Your task to perform on an android device: toggle wifi Image 0: 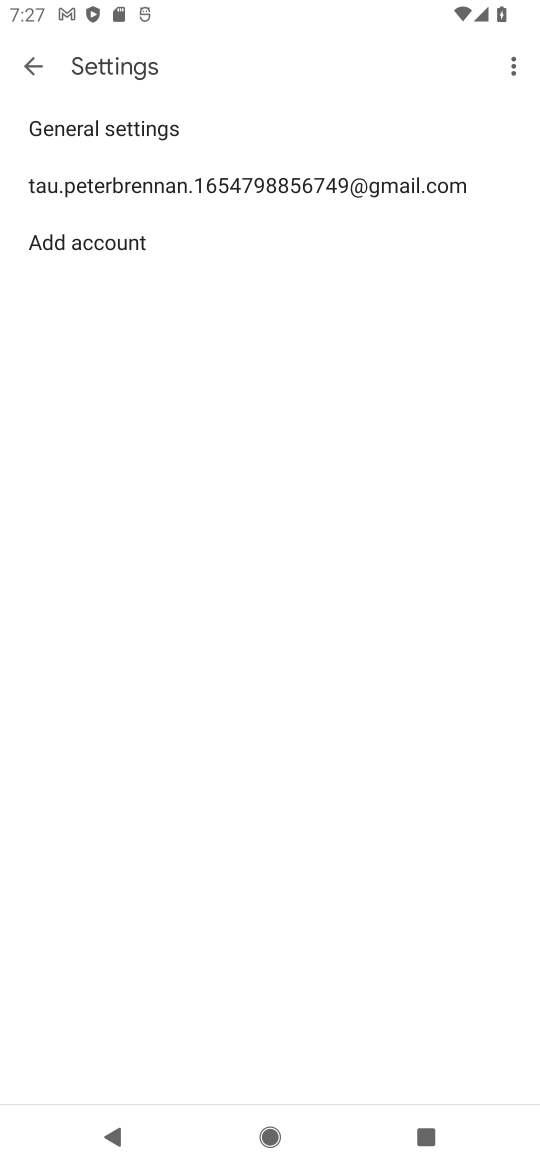
Step 0: click (31, 60)
Your task to perform on an android device: toggle wifi Image 1: 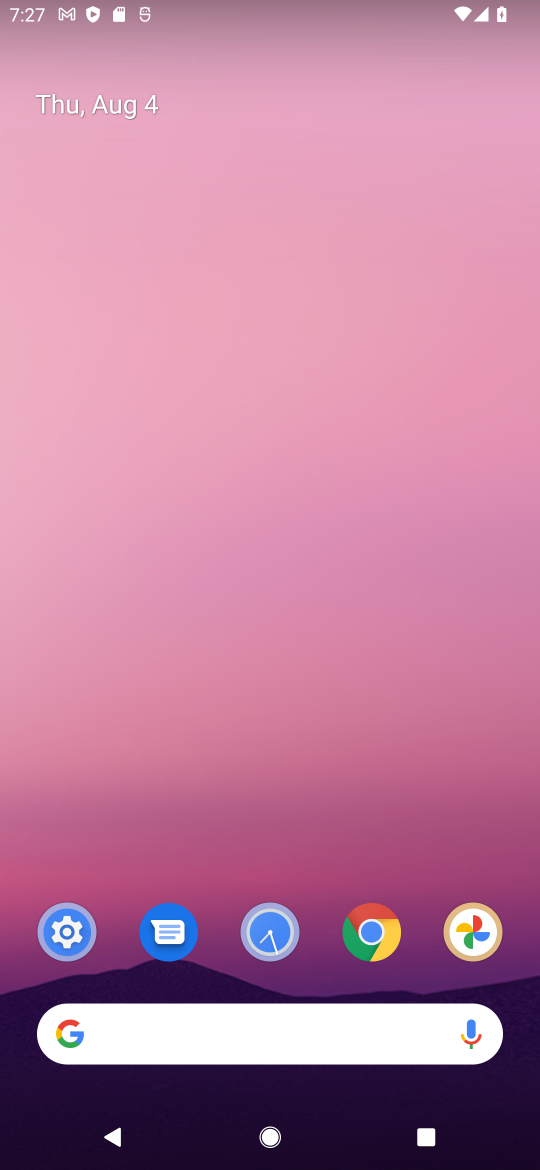
Step 1: drag from (333, 645) to (333, 352)
Your task to perform on an android device: toggle wifi Image 2: 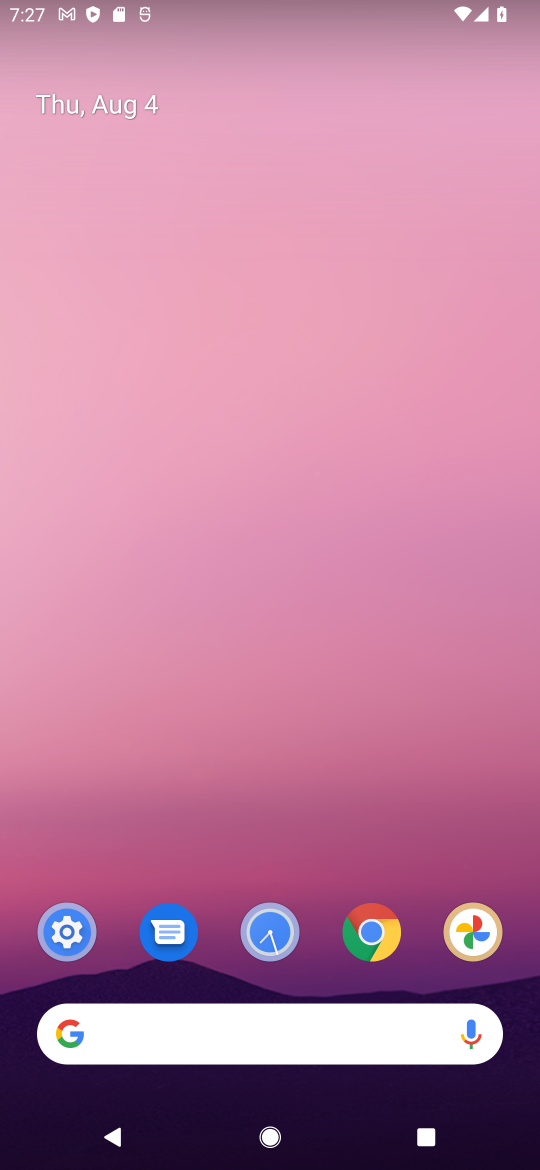
Step 2: drag from (454, 1040) to (398, 490)
Your task to perform on an android device: toggle wifi Image 3: 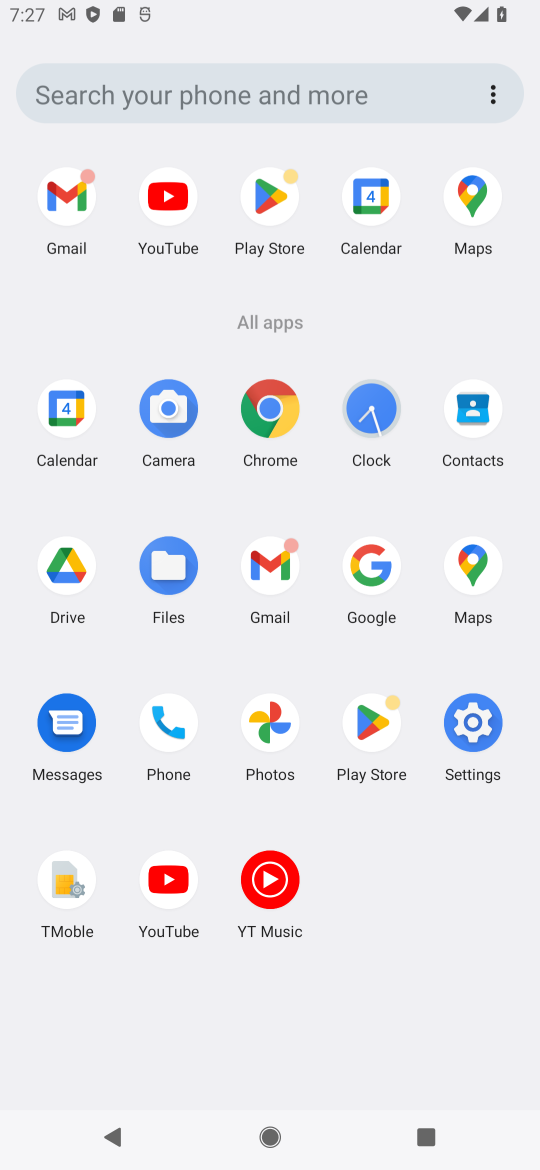
Step 3: drag from (285, 867) to (279, 399)
Your task to perform on an android device: toggle wifi Image 4: 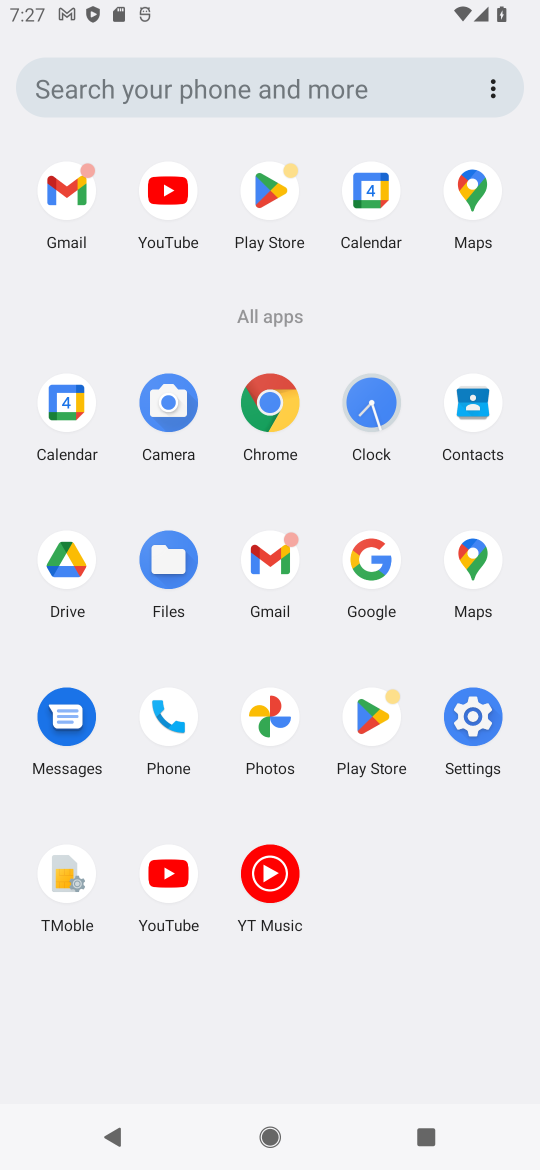
Step 4: click (465, 718)
Your task to perform on an android device: toggle wifi Image 5: 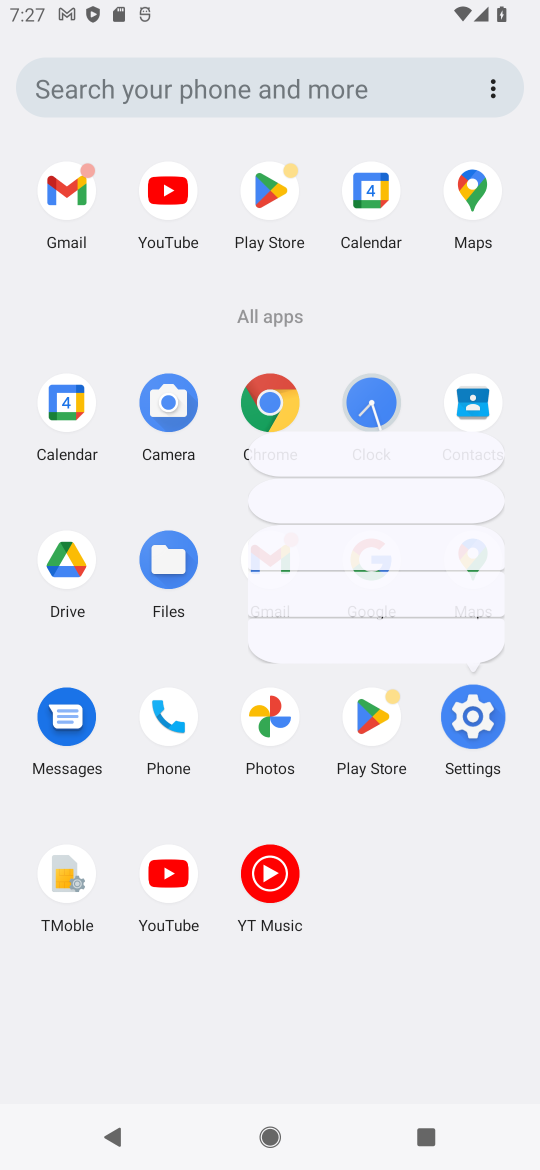
Step 5: click (465, 718)
Your task to perform on an android device: toggle wifi Image 6: 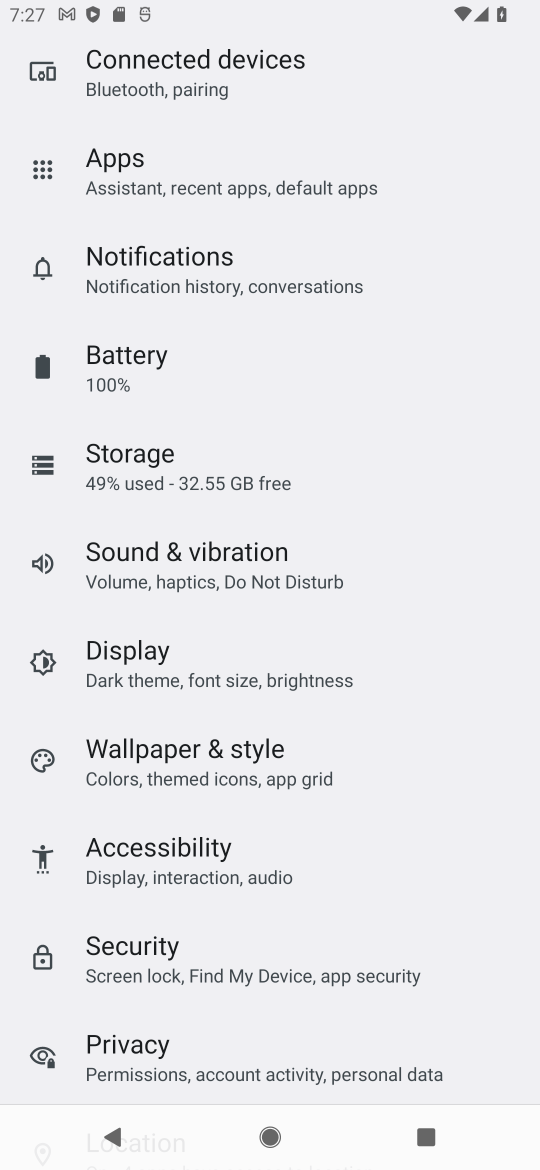
Step 6: drag from (144, 137) to (234, 613)
Your task to perform on an android device: toggle wifi Image 7: 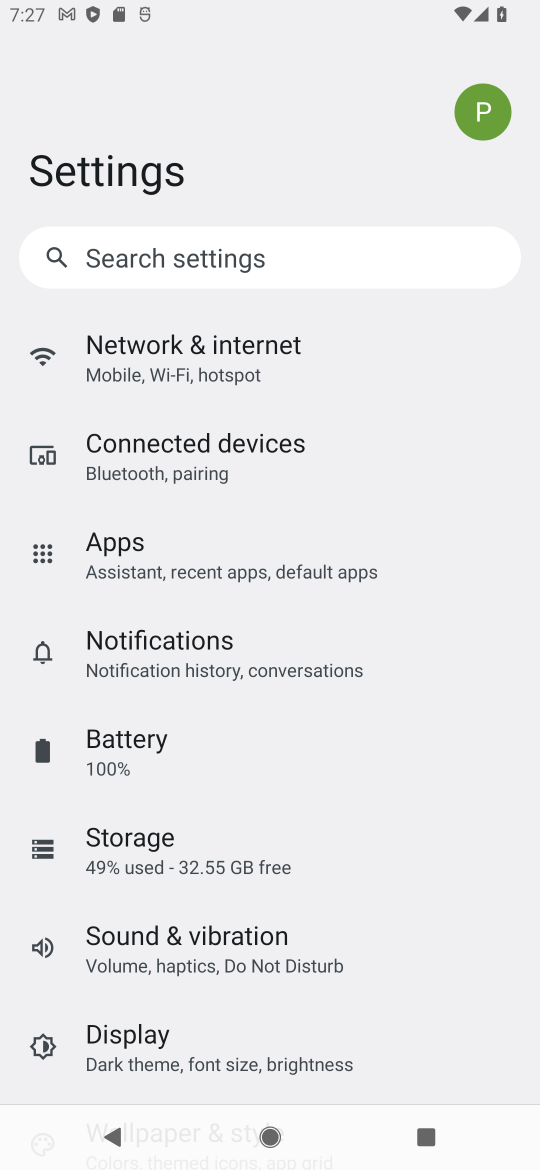
Step 7: click (223, 351)
Your task to perform on an android device: toggle wifi Image 8: 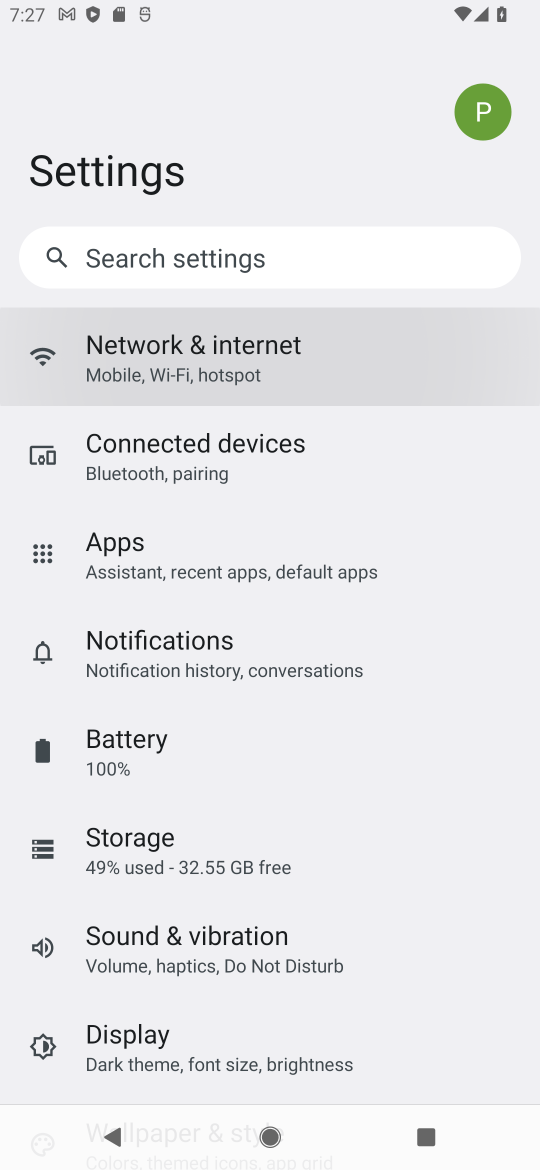
Step 8: click (223, 351)
Your task to perform on an android device: toggle wifi Image 9: 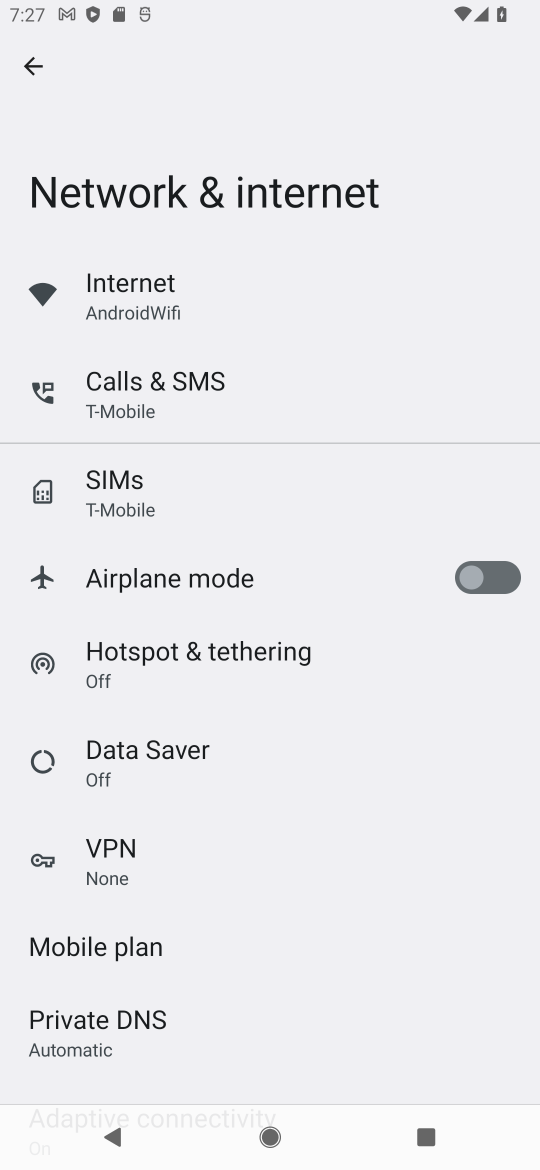
Step 9: click (135, 293)
Your task to perform on an android device: toggle wifi Image 10: 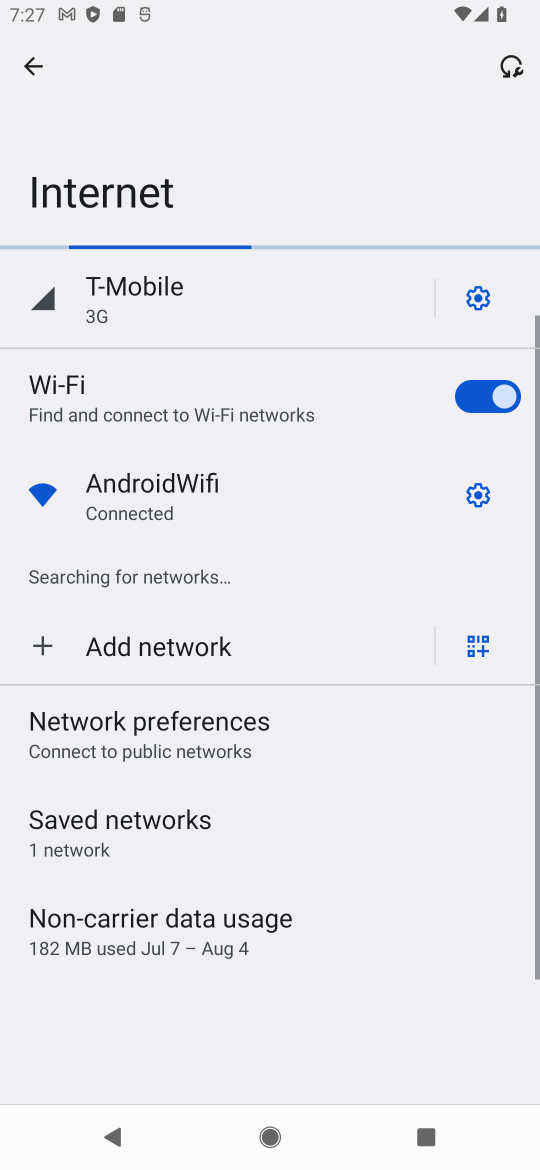
Step 10: click (487, 400)
Your task to perform on an android device: toggle wifi Image 11: 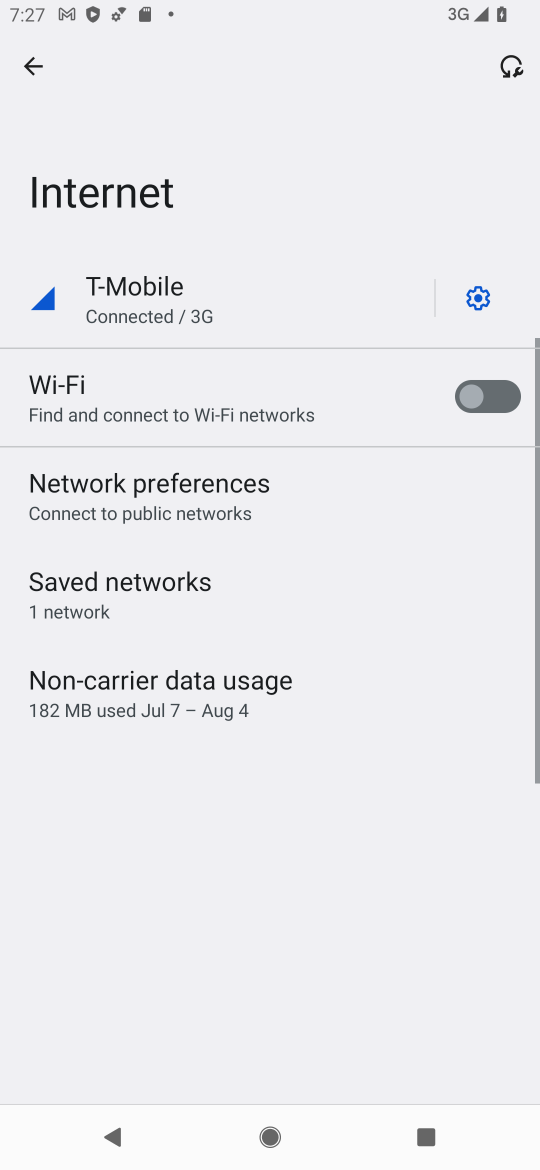
Step 11: task complete